Your task to perform on an android device: Go to privacy settings Image 0: 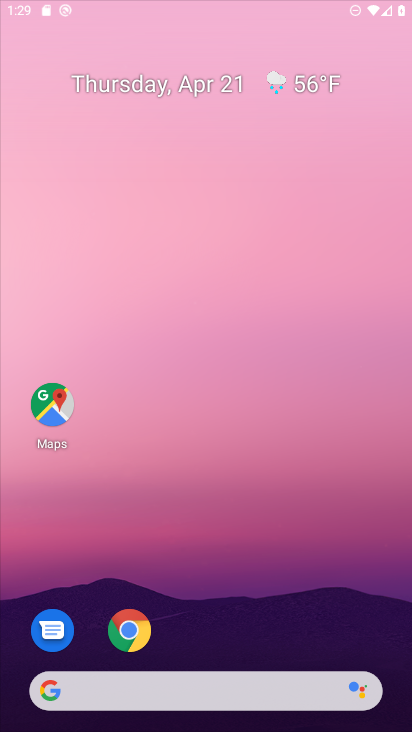
Step 0: drag from (170, 702) to (166, 163)
Your task to perform on an android device: Go to privacy settings Image 1: 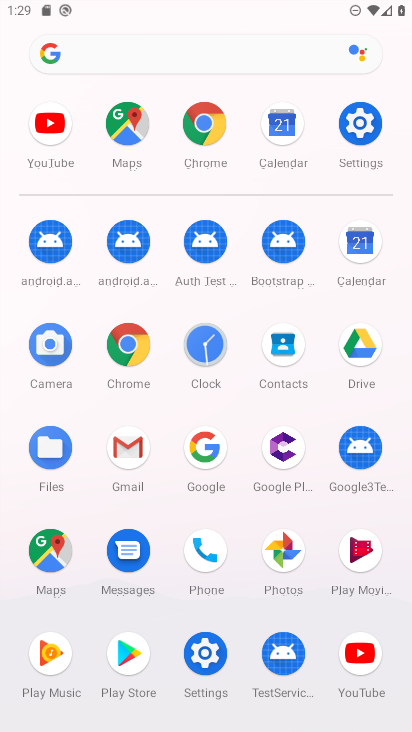
Step 1: click (355, 143)
Your task to perform on an android device: Go to privacy settings Image 2: 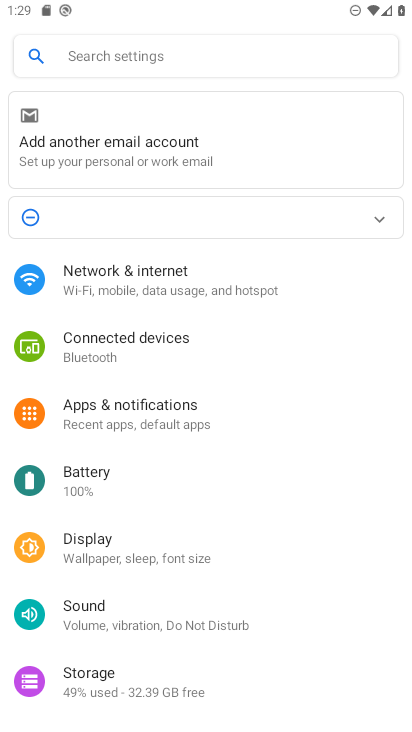
Step 2: drag from (120, 626) to (125, 241)
Your task to perform on an android device: Go to privacy settings Image 3: 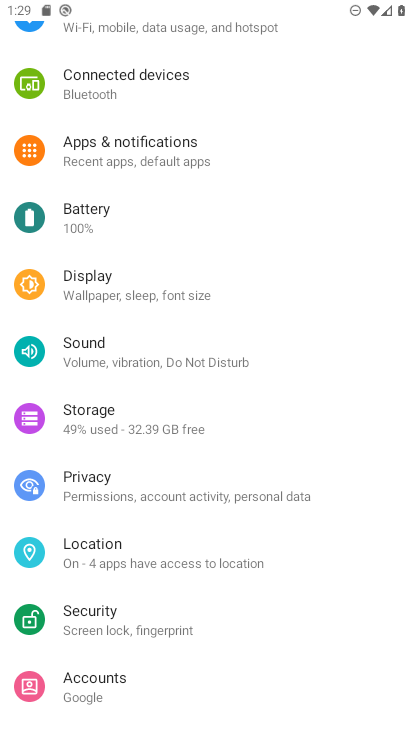
Step 3: click (103, 476)
Your task to perform on an android device: Go to privacy settings Image 4: 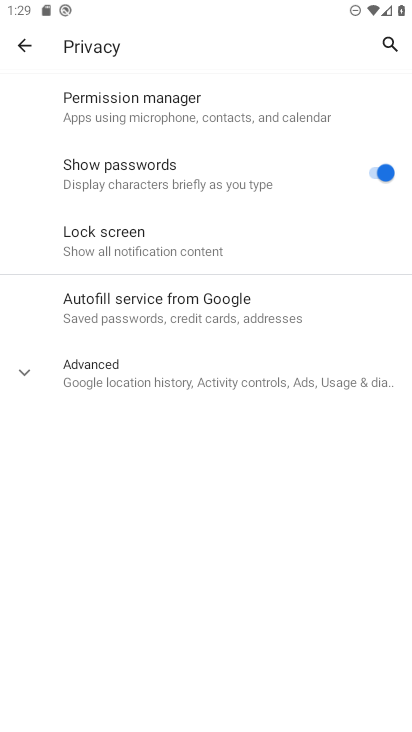
Step 4: task complete